Your task to perform on an android device: refresh tabs in the chrome app Image 0: 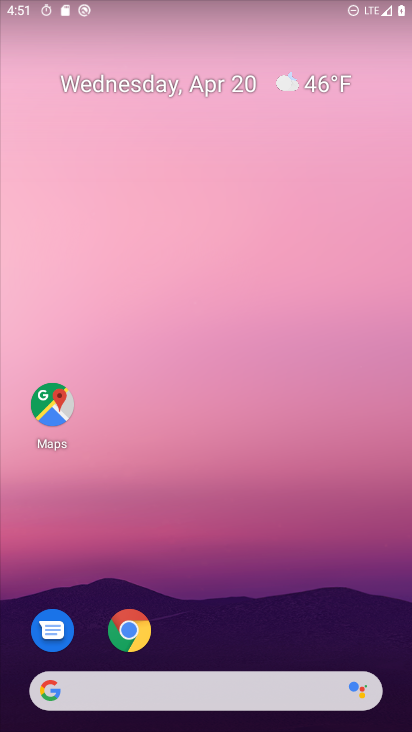
Step 0: drag from (312, 641) to (332, 52)
Your task to perform on an android device: refresh tabs in the chrome app Image 1: 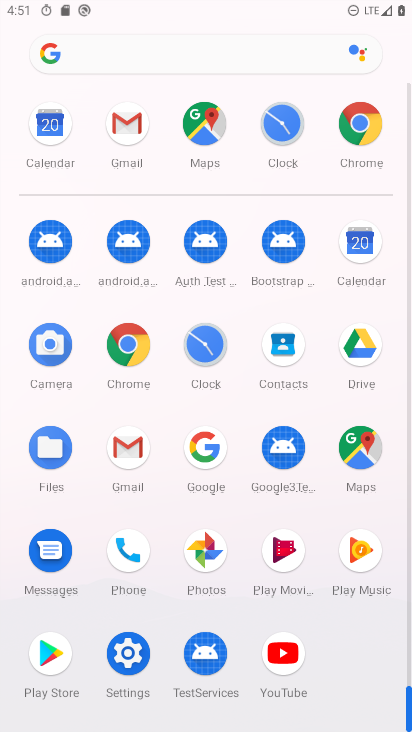
Step 1: click (126, 355)
Your task to perform on an android device: refresh tabs in the chrome app Image 2: 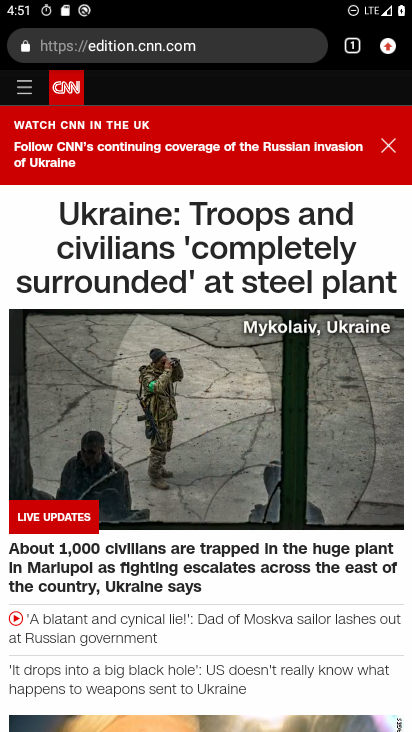
Step 2: click (388, 47)
Your task to perform on an android device: refresh tabs in the chrome app Image 3: 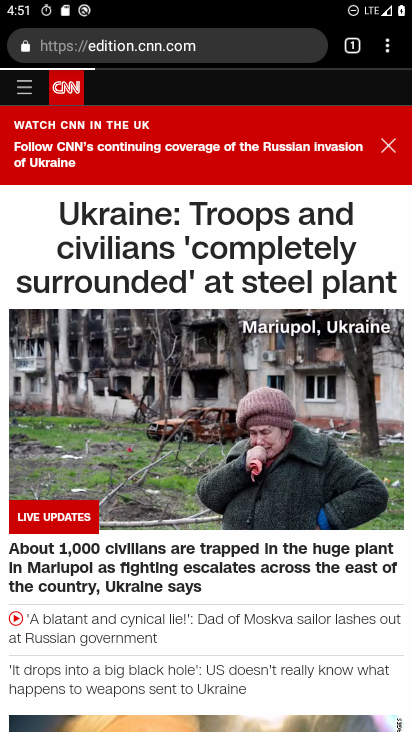
Step 3: click (389, 46)
Your task to perform on an android device: refresh tabs in the chrome app Image 4: 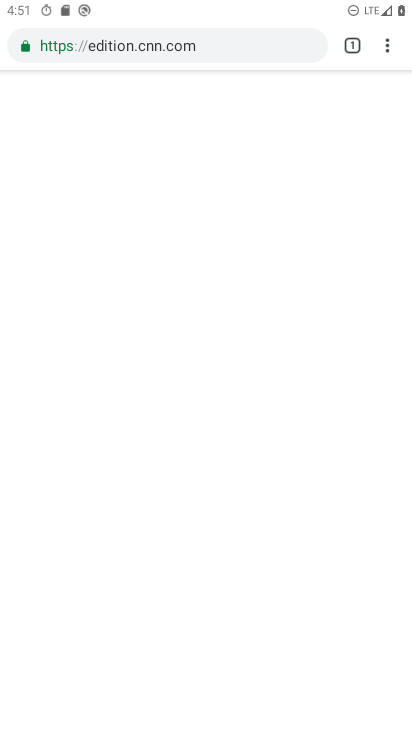
Step 4: task complete